Your task to perform on an android device: open the mobile data screen to see how much data has been used Image 0: 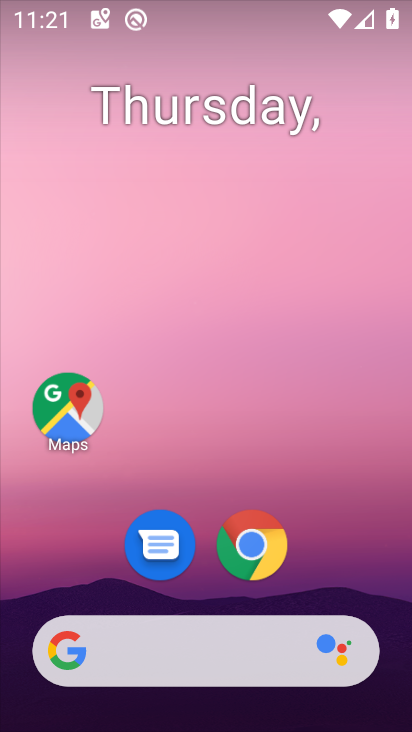
Step 0: drag from (297, 590) to (273, 0)
Your task to perform on an android device: open the mobile data screen to see how much data has been used Image 1: 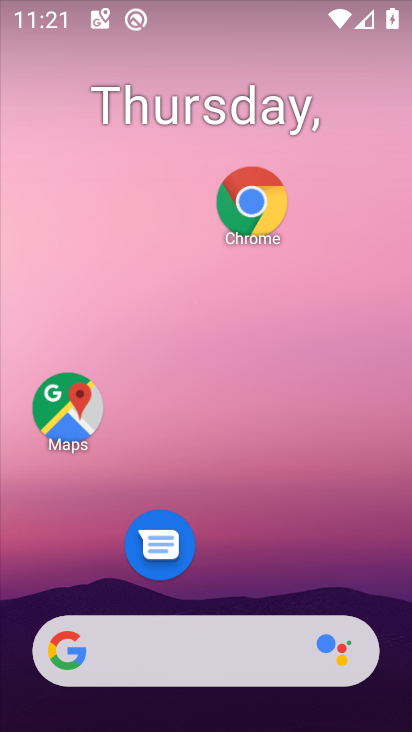
Step 1: drag from (241, 553) to (214, 0)
Your task to perform on an android device: open the mobile data screen to see how much data has been used Image 2: 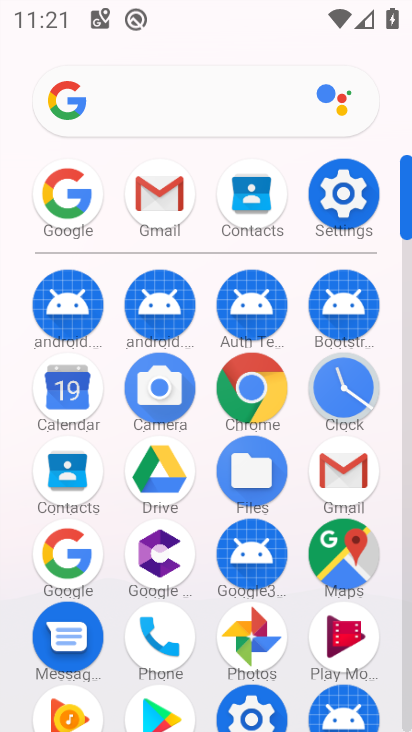
Step 2: click (329, 229)
Your task to perform on an android device: open the mobile data screen to see how much data has been used Image 3: 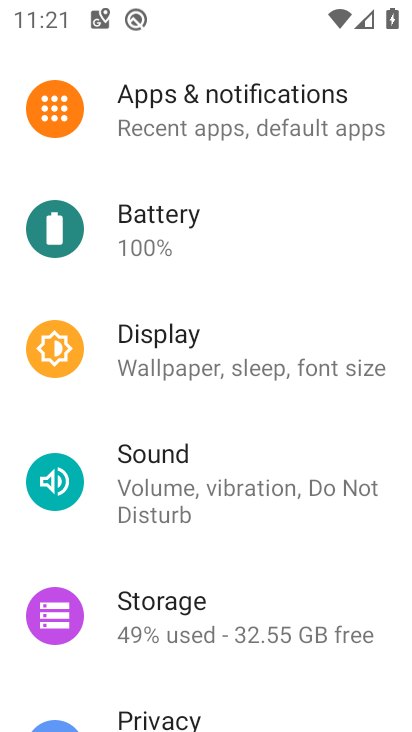
Step 3: drag from (228, 274) to (196, 597)
Your task to perform on an android device: open the mobile data screen to see how much data has been used Image 4: 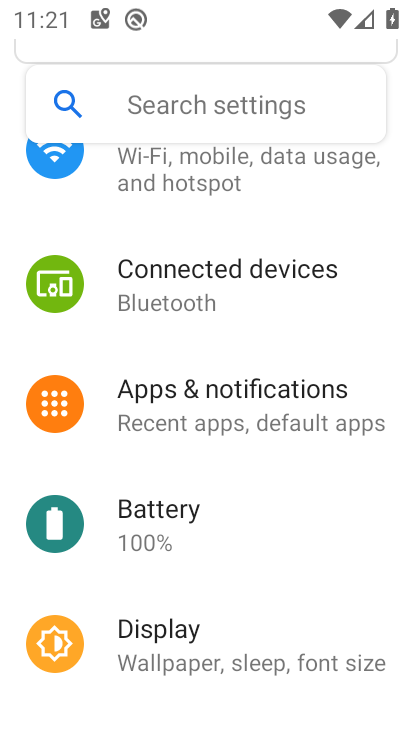
Step 4: click (162, 191)
Your task to perform on an android device: open the mobile data screen to see how much data has been used Image 5: 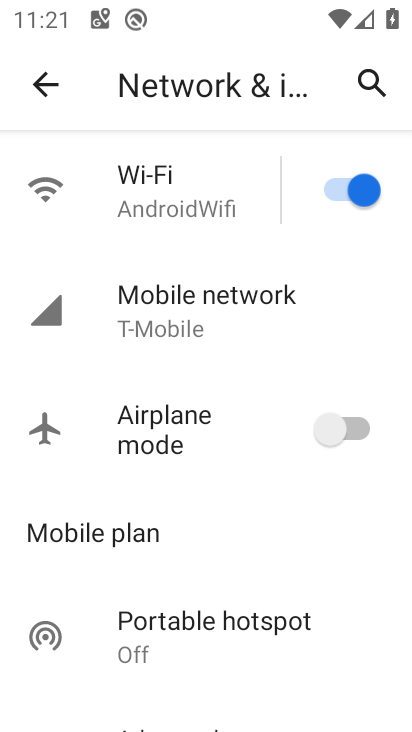
Step 5: click (167, 342)
Your task to perform on an android device: open the mobile data screen to see how much data has been used Image 6: 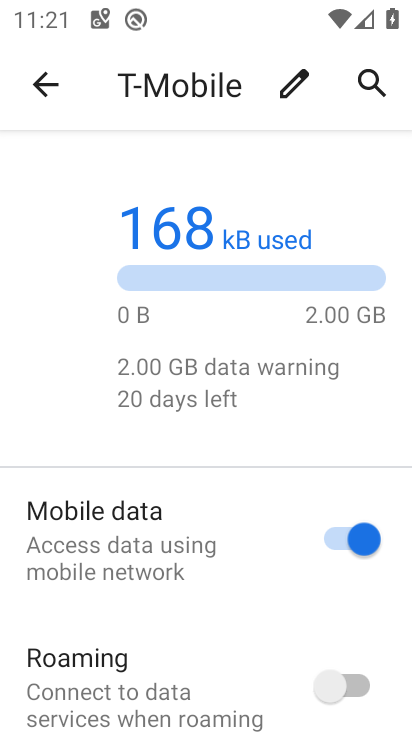
Step 6: task complete